Your task to perform on an android device: Go to Wikipedia Image 0: 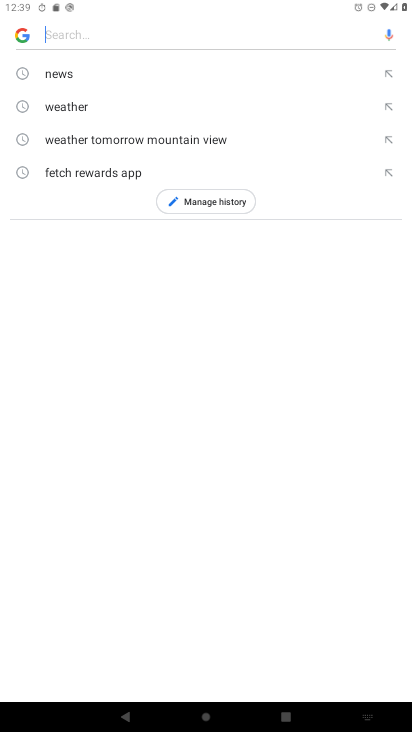
Step 0: press home button
Your task to perform on an android device: Go to Wikipedia Image 1: 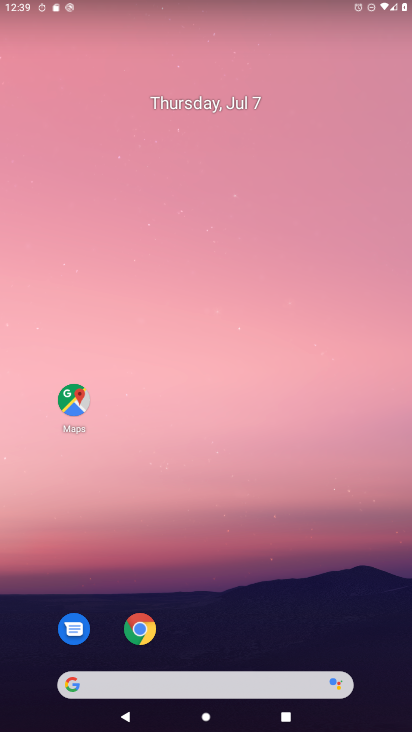
Step 1: click (144, 638)
Your task to perform on an android device: Go to Wikipedia Image 2: 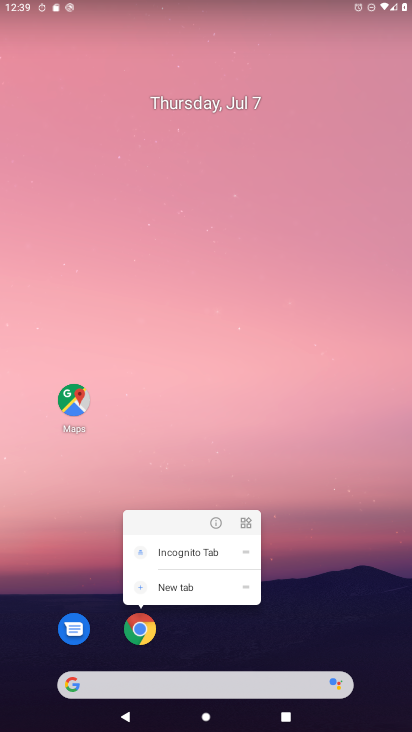
Step 2: click (145, 637)
Your task to perform on an android device: Go to Wikipedia Image 3: 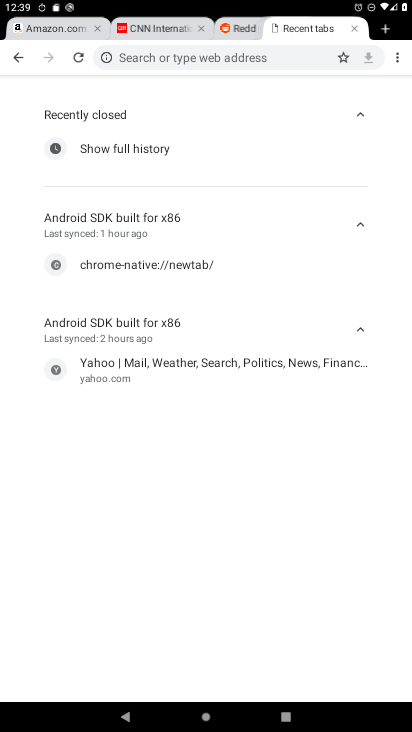
Step 3: click (379, 29)
Your task to perform on an android device: Go to Wikipedia Image 4: 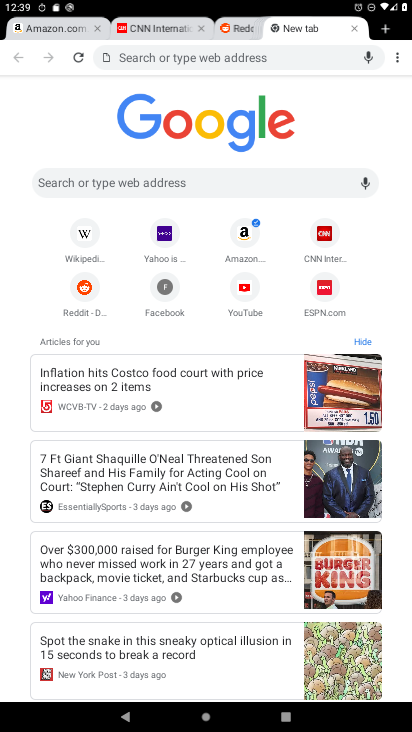
Step 4: click (86, 238)
Your task to perform on an android device: Go to Wikipedia Image 5: 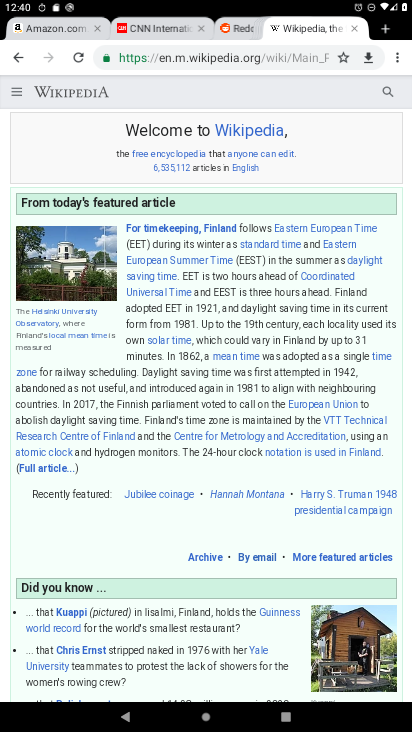
Step 5: task complete